Your task to perform on an android device: turn off sleep mode Image 0: 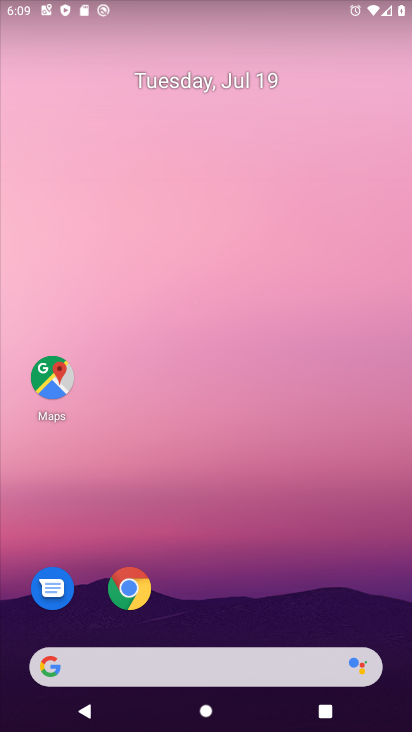
Step 0: drag from (208, 636) to (209, 82)
Your task to perform on an android device: turn off sleep mode Image 1: 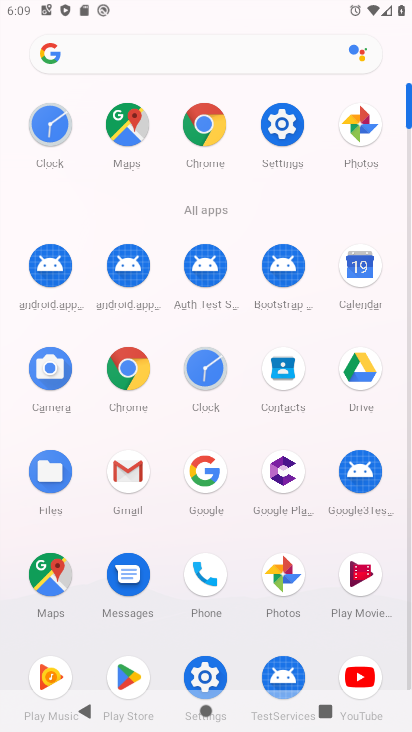
Step 1: click (280, 123)
Your task to perform on an android device: turn off sleep mode Image 2: 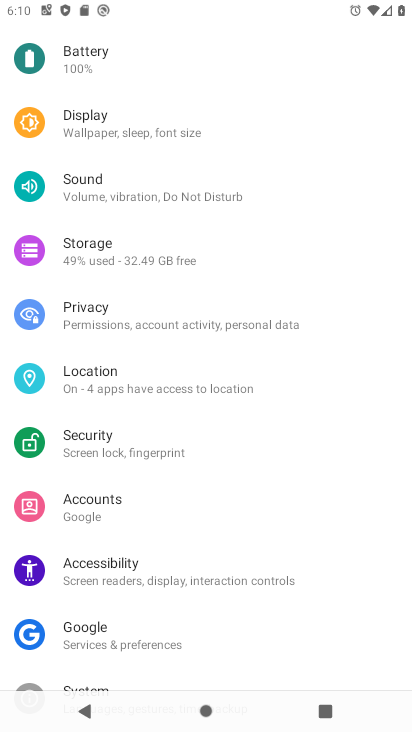
Step 2: task complete